Your task to perform on an android device: turn off notifications in google photos Image 0: 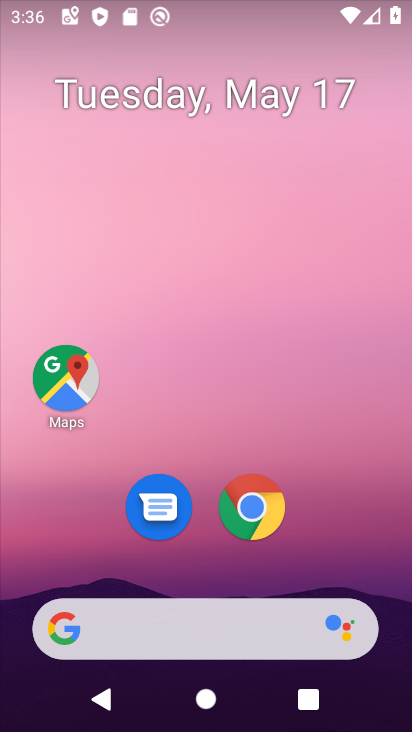
Step 0: drag from (330, 491) to (308, 44)
Your task to perform on an android device: turn off notifications in google photos Image 1: 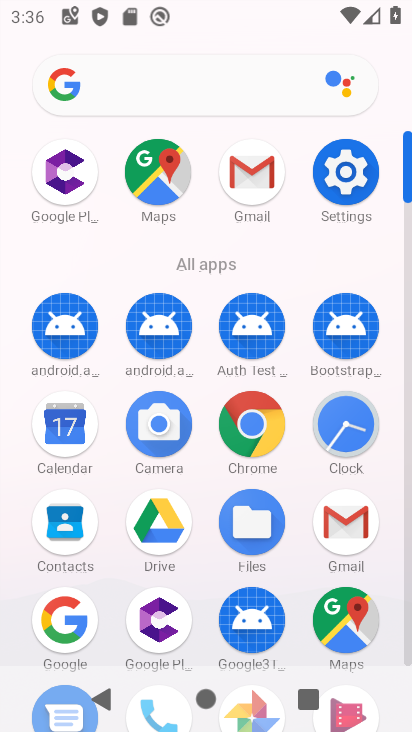
Step 1: click (254, 689)
Your task to perform on an android device: turn off notifications in google photos Image 2: 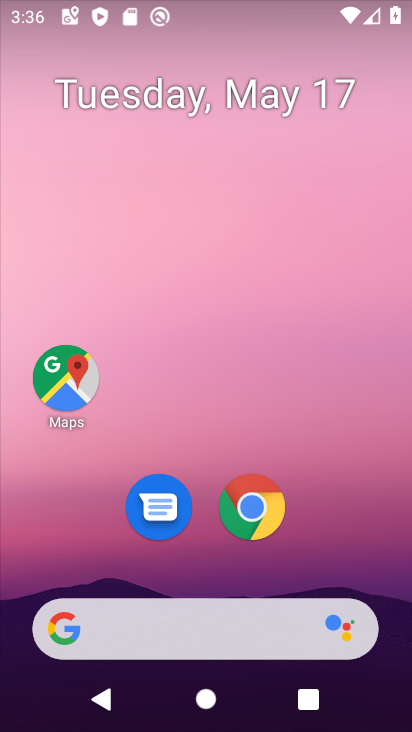
Step 2: drag from (307, 542) to (304, 14)
Your task to perform on an android device: turn off notifications in google photos Image 3: 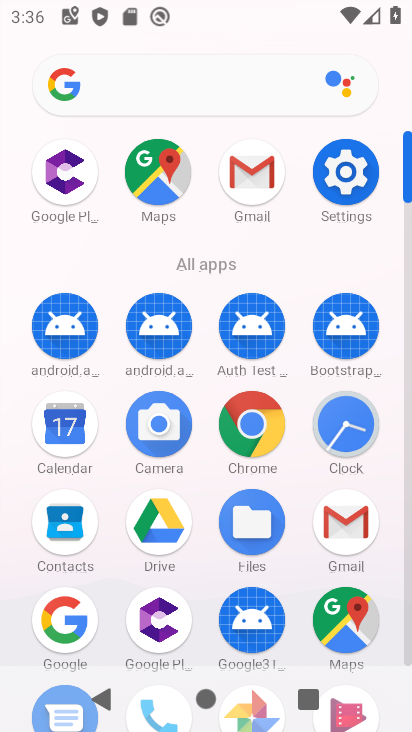
Step 3: drag from (289, 514) to (290, 100)
Your task to perform on an android device: turn off notifications in google photos Image 4: 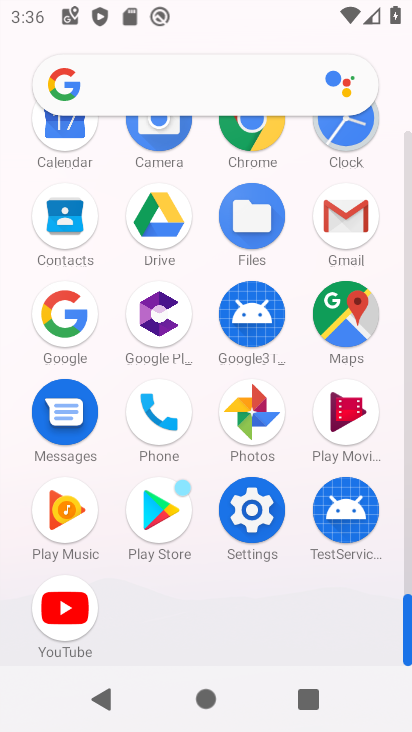
Step 4: click (248, 407)
Your task to perform on an android device: turn off notifications in google photos Image 5: 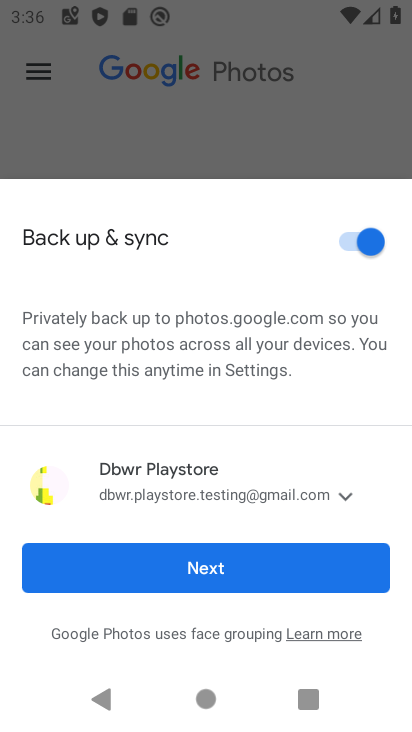
Step 5: click (226, 565)
Your task to perform on an android device: turn off notifications in google photos Image 6: 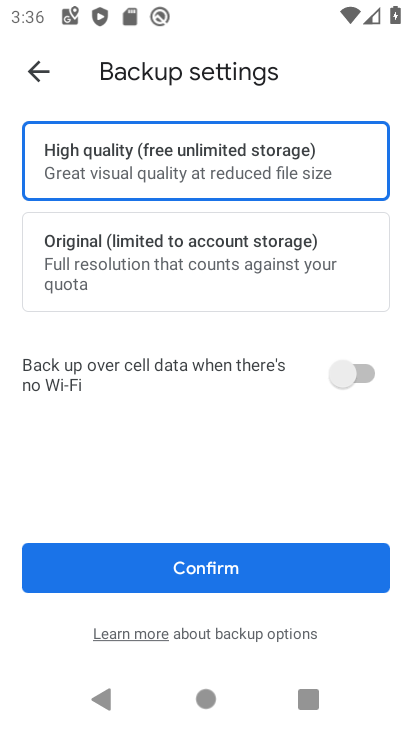
Step 6: click (42, 63)
Your task to perform on an android device: turn off notifications in google photos Image 7: 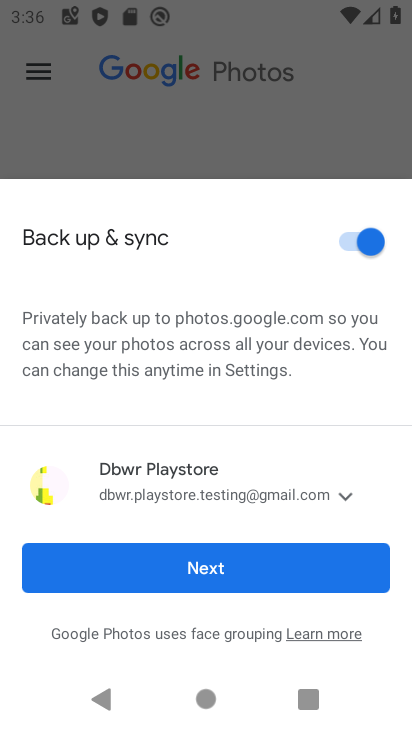
Step 7: click (254, 100)
Your task to perform on an android device: turn off notifications in google photos Image 8: 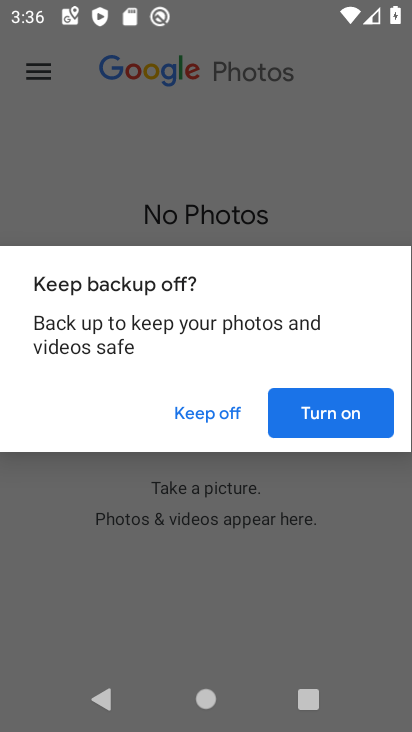
Step 8: click (204, 409)
Your task to perform on an android device: turn off notifications in google photos Image 9: 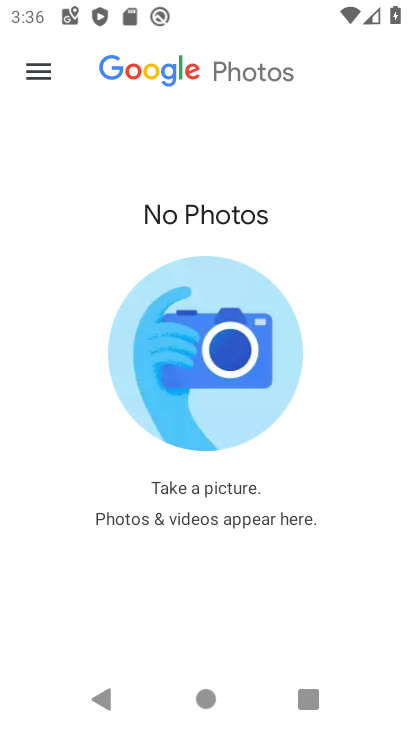
Step 9: click (48, 71)
Your task to perform on an android device: turn off notifications in google photos Image 10: 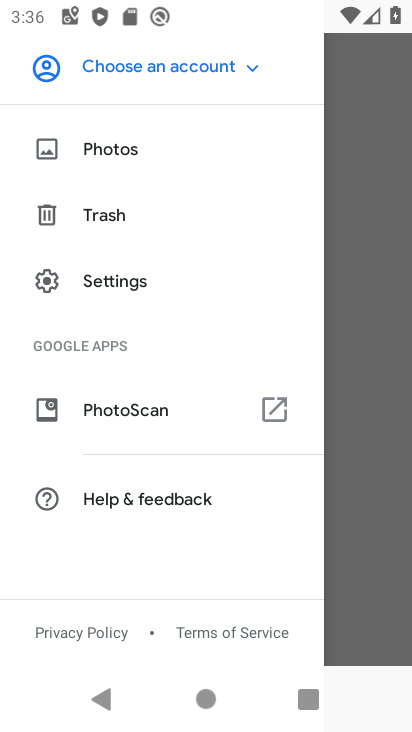
Step 10: drag from (225, 536) to (263, 231)
Your task to perform on an android device: turn off notifications in google photos Image 11: 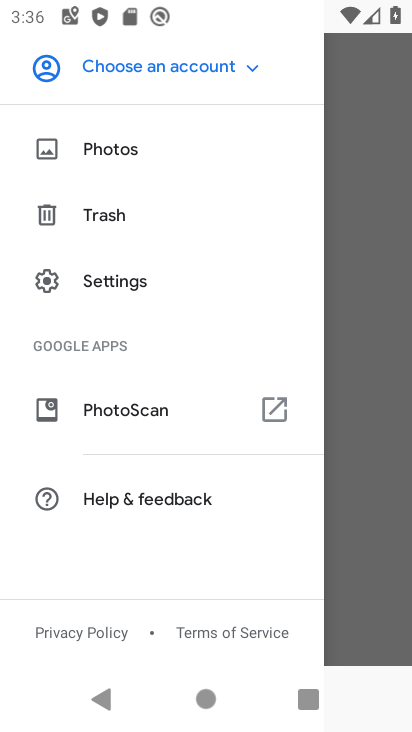
Step 11: click (128, 291)
Your task to perform on an android device: turn off notifications in google photos Image 12: 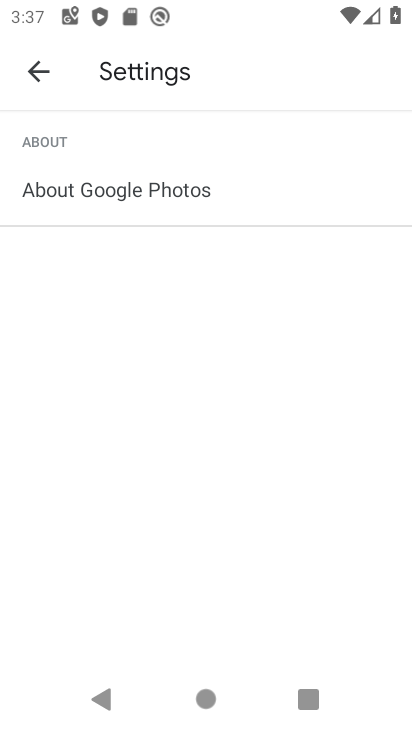
Step 12: click (37, 75)
Your task to perform on an android device: turn off notifications in google photos Image 13: 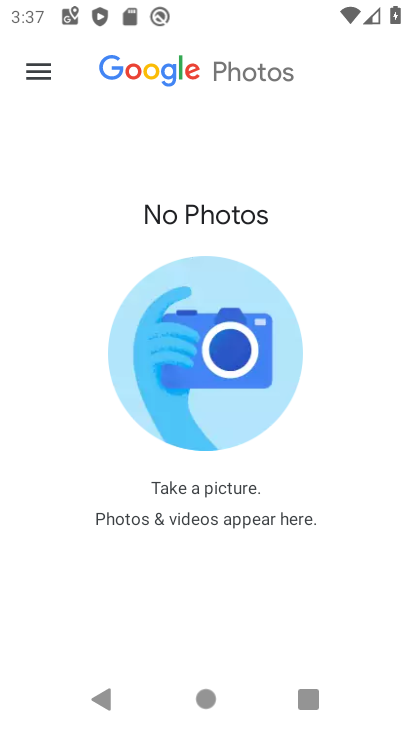
Step 13: click (31, 63)
Your task to perform on an android device: turn off notifications in google photos Image 14: 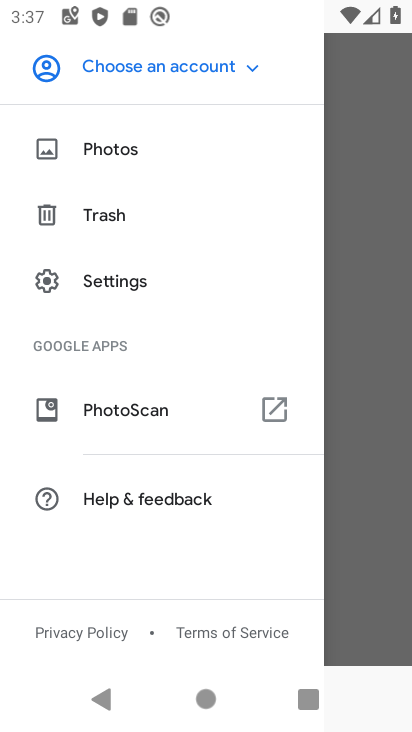
Step 14: click (119, 304)
Your task to perform on an android device: turn off notifications in google photos Image 15: 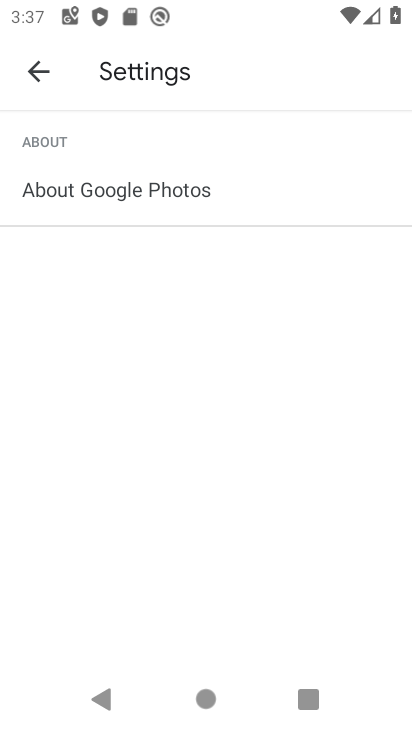
Step 15: click (41, 68)
Your task to perform on an android device: turn off notifications in google photos Image 16: 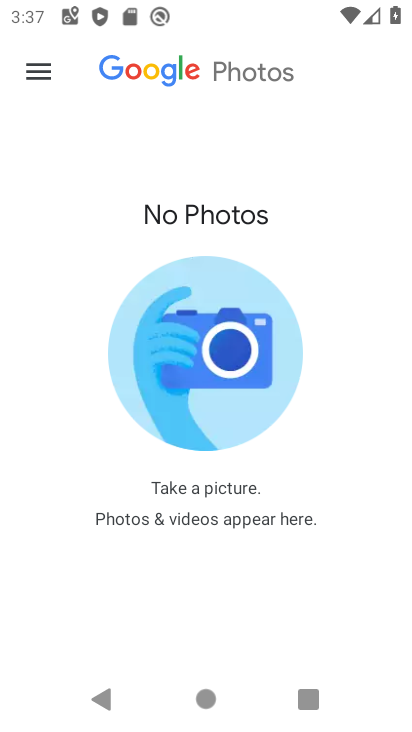
Step 16: click (281, 417)
Your task to perform on an android device: turn off notifications in google photos Image 17: 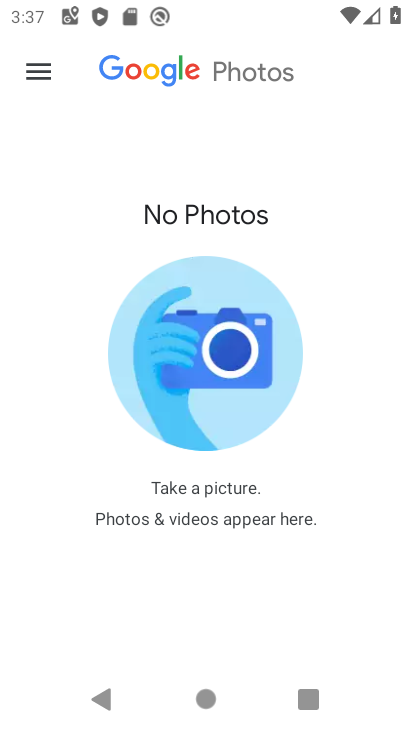
Step 17: drag from (256, 575) to (266, 142)
Your task to perform on an android device: turn off notifications in google photos Image 18: 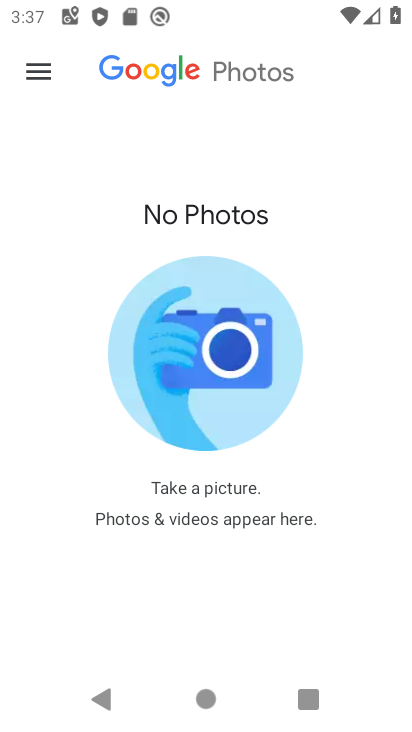
Step 18: click (31, 72)
Your task to perform on an android device: turn off notifications in google photos Image 19: 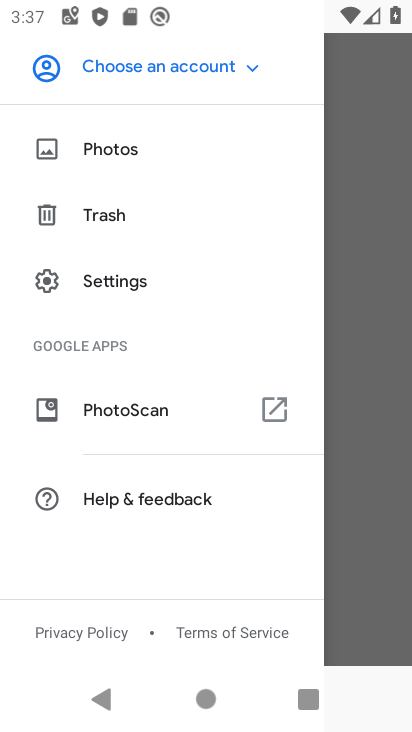
Step 19: click (133, 264)
Your task to perform on an android device: turn off notifications in google photos Image 20: 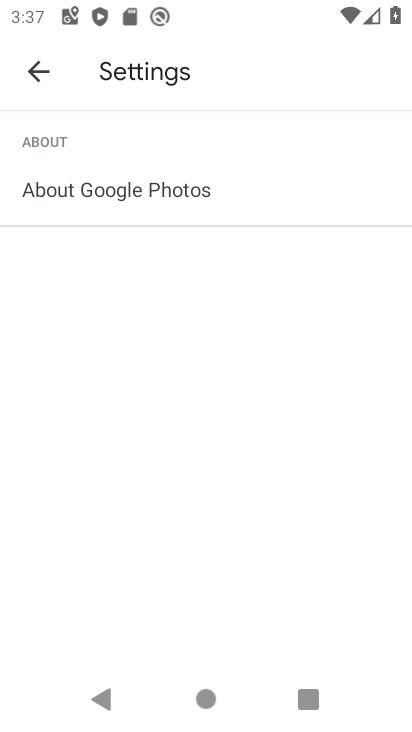
Step 20: task complete